Your task to perform on an android device: Open Google Image 0: 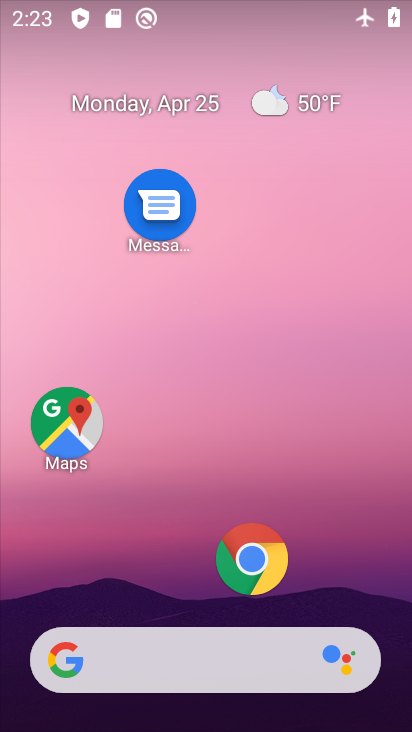
Step 0: click (172, 660)
Your task to perform on an android device: Open Google Image 1: 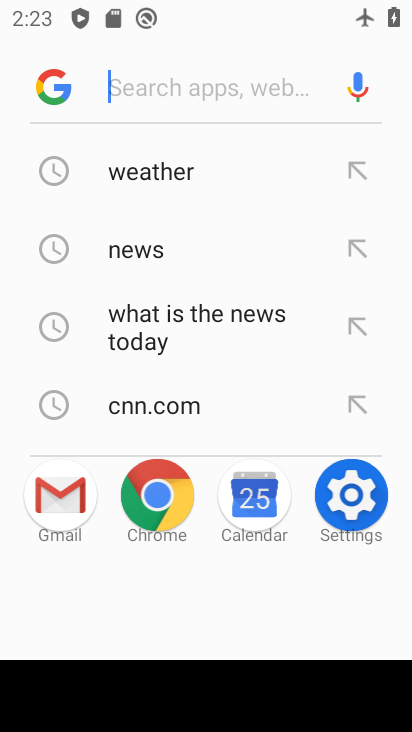
Step 1: click (54, 97)
Your task to perform on an android device: Open Google Image 2: 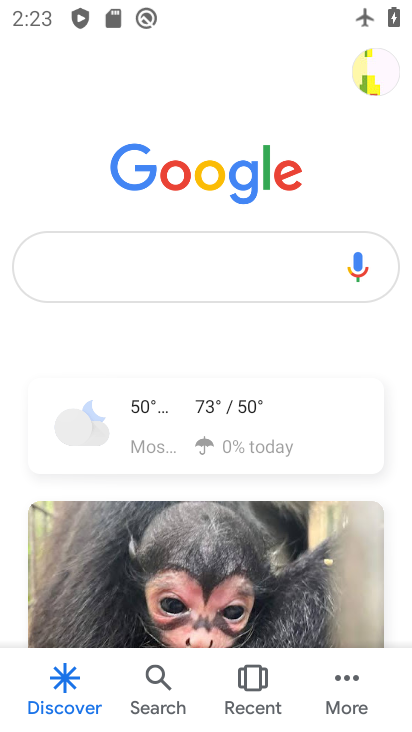
Step 2: task complete